Your task to perform on an android device: Go to Reddit.com Image 0: 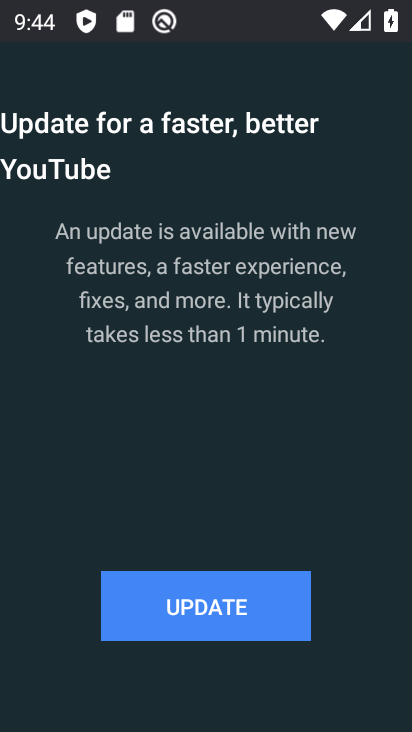
Step 0: press home button
Your task to perform on an android device: Go to Reddit.com Image 1: 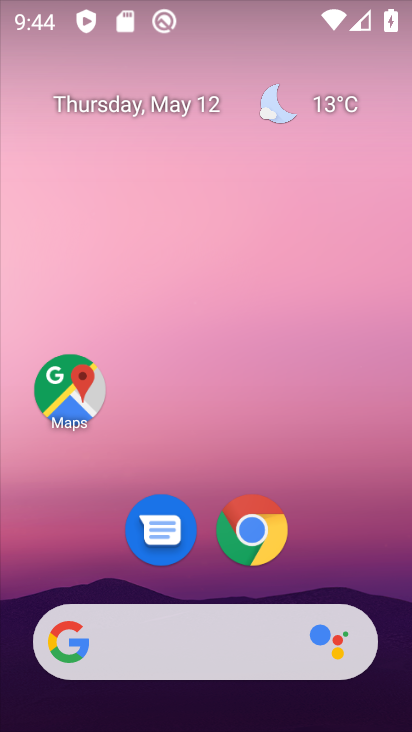
Step 1: click (230, 527)
Your task to perform on an android device: Go to Reddit.com Image 2: 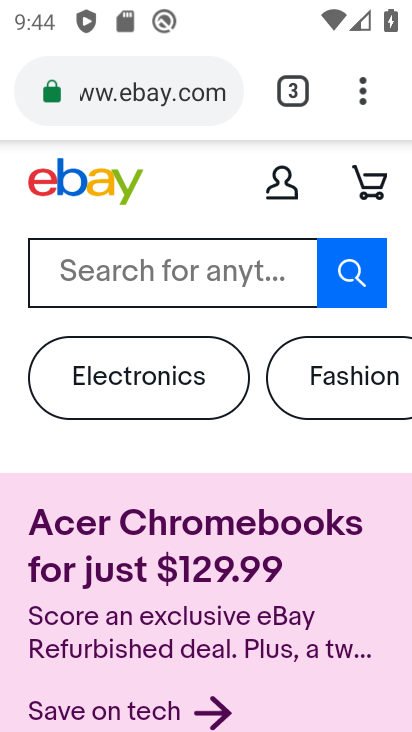
Step 2: click (285, 97)
Your task to perform on an android device: Go to Reddit.com Image 3: 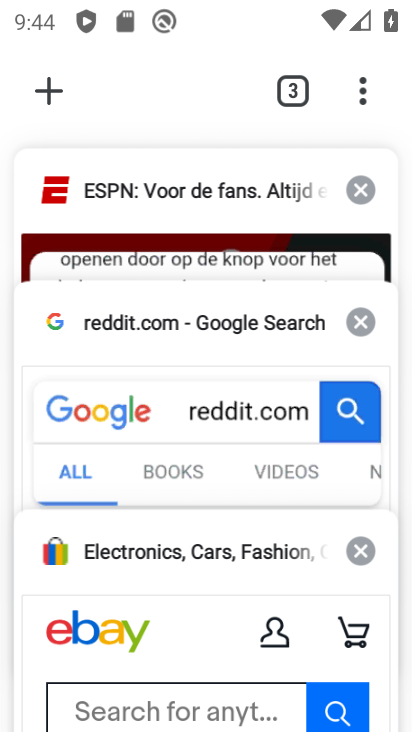
Step 3: click (222, 308)
Your task to perform on an android device: Go to Reddit.com Image 4: 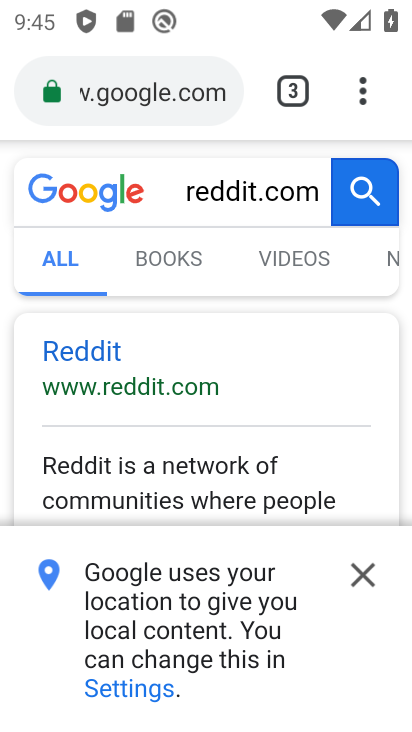
Step 4: click (100, 369)
Your task to perform on an android device: Go to Reddit.com Image 5: 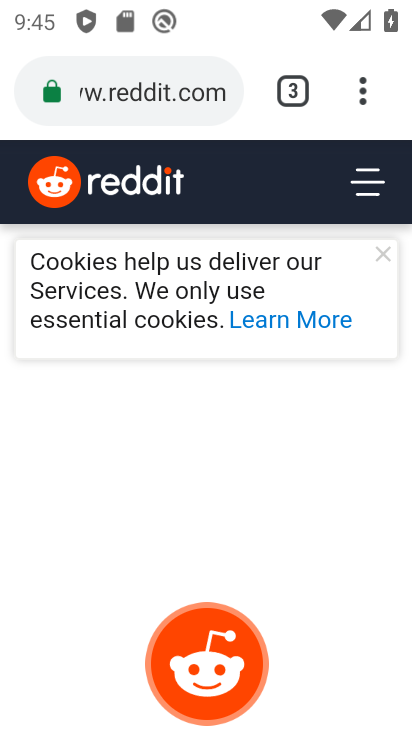
Step 5: task complete